Your task to perform on an android device: open chrome and create a bookmark for the current page Image 0: 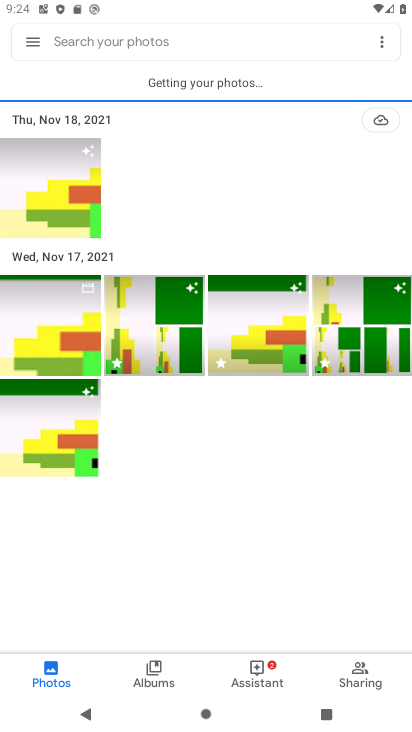
Step 0: press home button
Your task to perform on an android device: open chrome and create a bookmark for the current page Image 1: 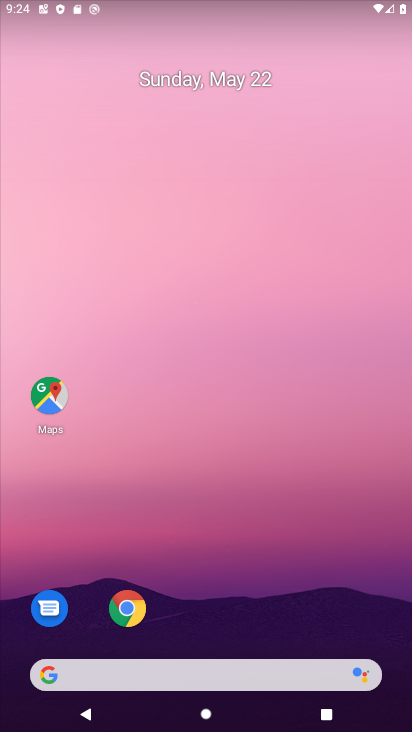
Step 1: drag from (296, 498) to (219, 109)
Your task to perform on an android device: open chrome and create a bookmark for the current page Image 2: 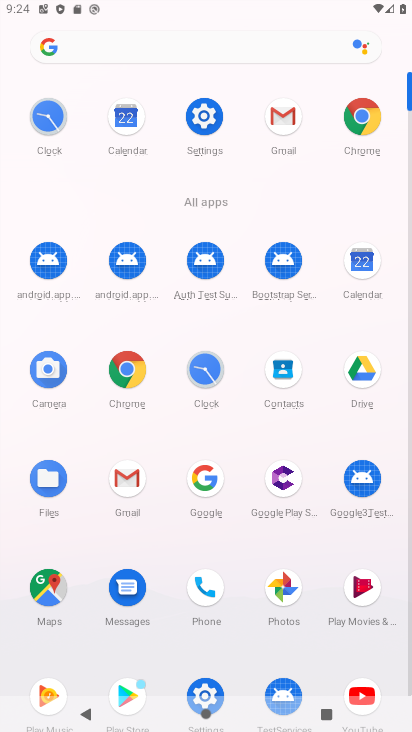
Step 2: click (373, 114)
Your task to perform on an android device: open chrome and create a bookmark for the current page Image 3: 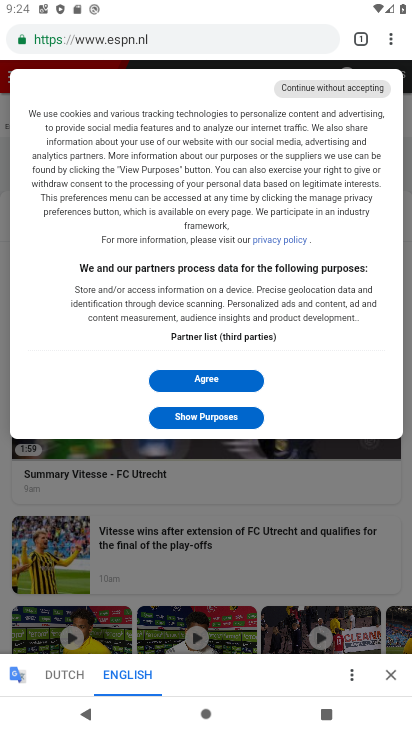
Step 3: task complete